Your task to perform on an android device: Open calendar and show me the fourth week of next month Image 0: 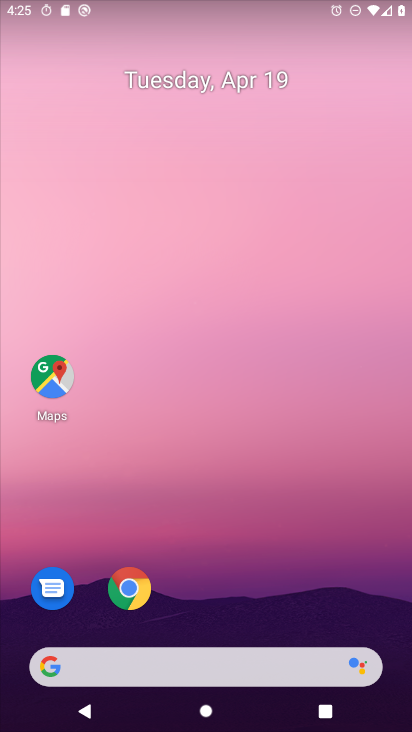
Step 0: drag from (227, 446) to (215, 118)
Your task to perform on an android device: Open calendar and show me the fourth week of next month Image 1: 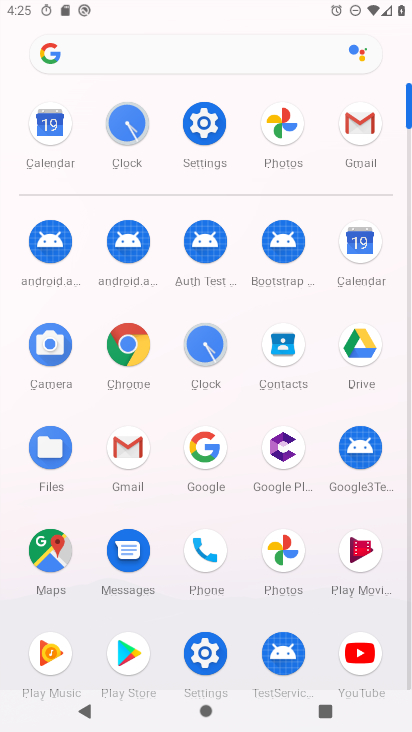
Step 1: click (352, 241)
Your task to perform on an android device: Open calendar and show me the fourth week of next month Image 2: 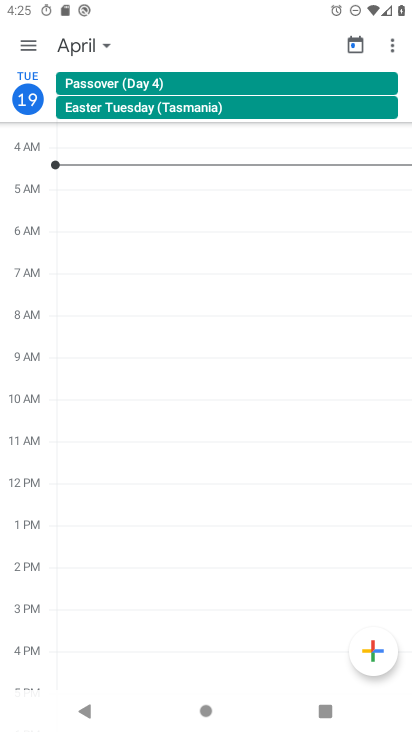
Step 2: click (30, 44)
Your task to perform on an android device: Open calendar and show me the fourth week of next month Image 3: 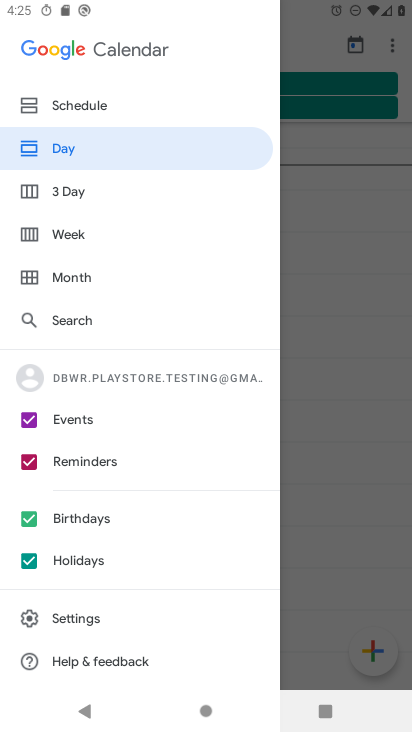
Step 3: click (86, 244)
Your task to perform on an android device: Open calendar and show me the fourth week of next month Image 4: 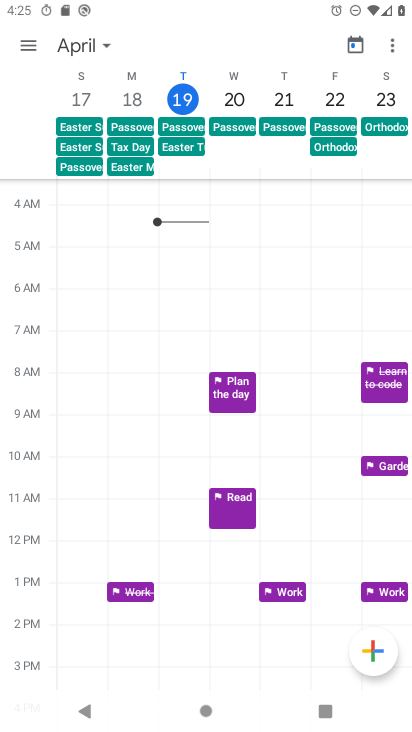
Step 4: click (105, 45)
Your task to perform on an android device: Open calendar and show me the fourth week of next month Image 5: 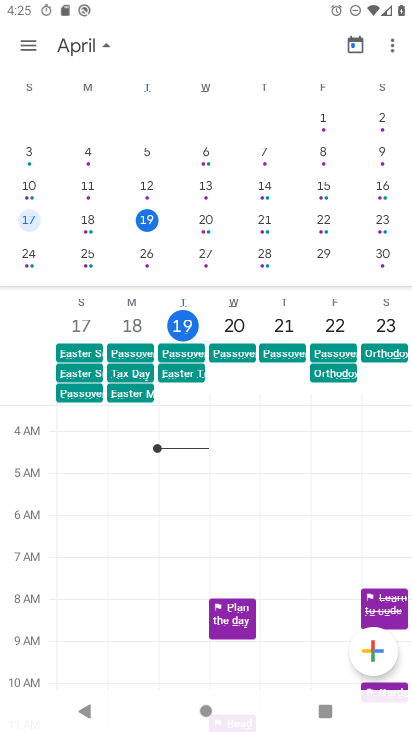
Step 5: drag from (360, 237) to (0, 349)
Your task to perform on an android device: Open calendar and show me the fourth week of next month Image 6: 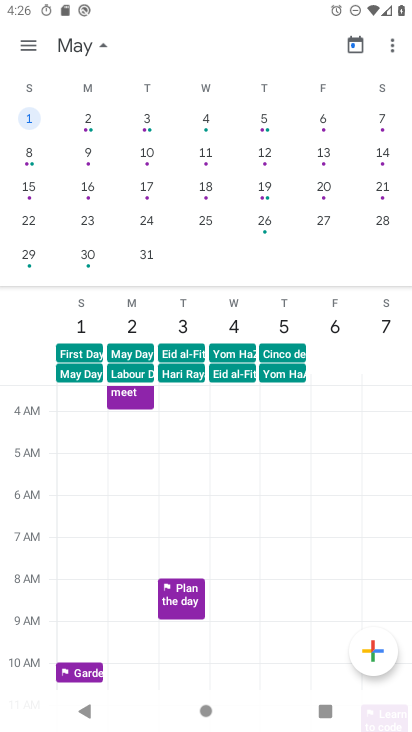
Step 6: click (41, 224)
Your task to perform on an android device: Open calendar and show me the fourth week of next month Image 7: 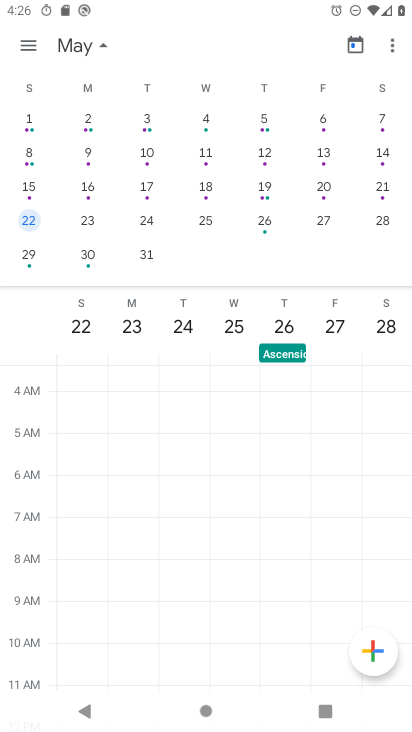
Step 7: task complete